Your task to perform on an android device: turn off priority inbox in the gmail app Image 0: 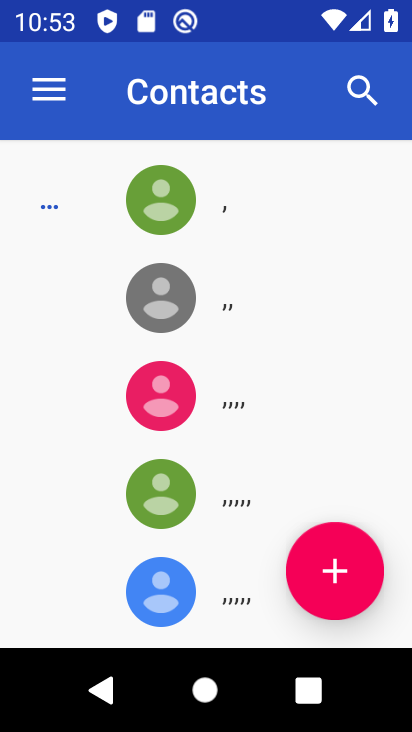
Step 0: press home button
Your task to perform on an android device: turn off priority inbox in the gmail app Image 1: 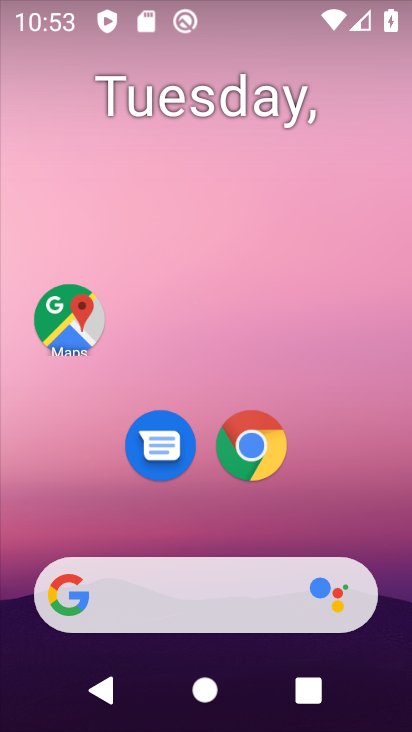
Step 1: drag from (373, 491) to (367, 228)
Your task to perform on an android device: turn off priority inbox in the gmail app Image 2: 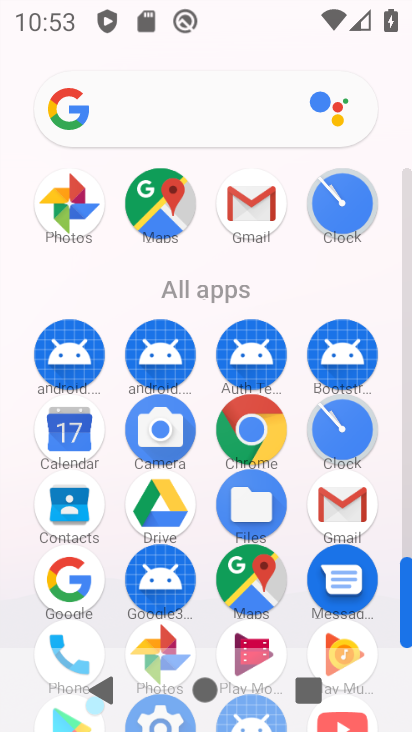
Step 2: click (343, 519)
Your task to perform on an android device: turn off priority inbox in the gmail app Image 3: 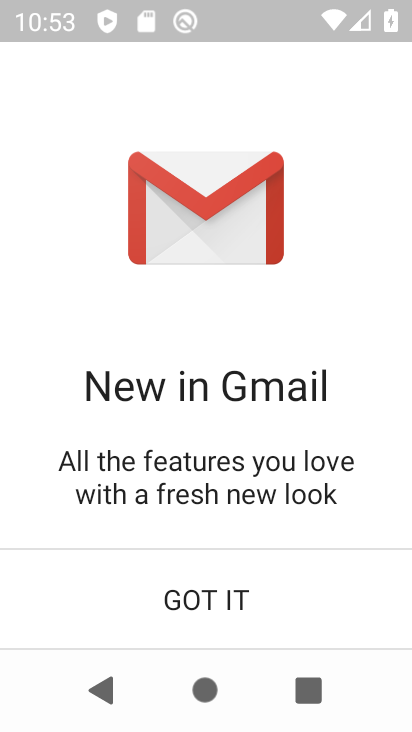
Step 3: click (232, 611)
Your task to perform on an android device: turn off priority inbox in the gmail app Image 4: 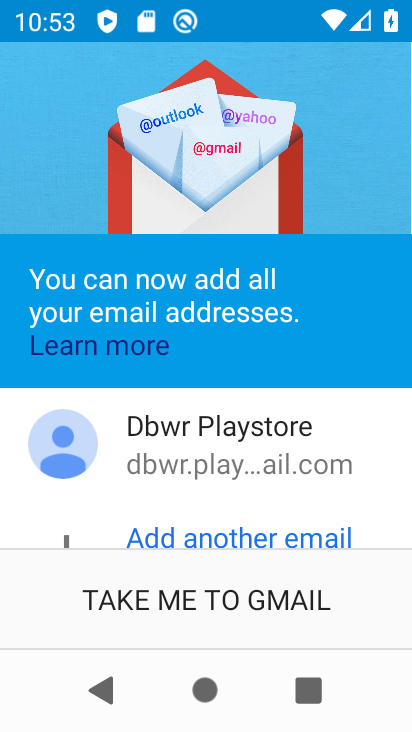
Step 4: click (232, 611)
Your task to perform on an android device: turn off priority inbox in the gmail app Image 5: 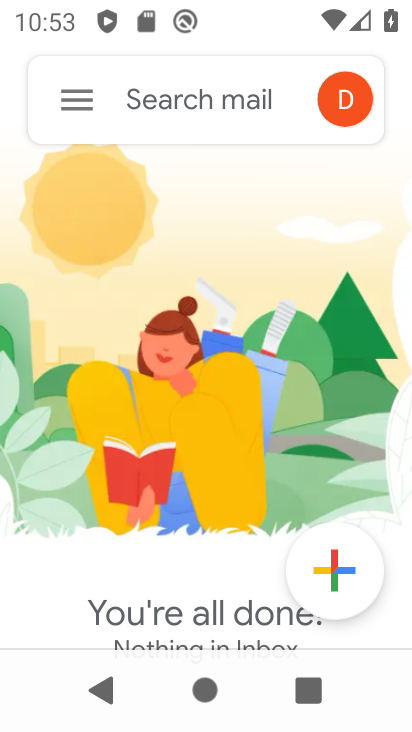
Step 5: click (80, 107)
Your task to perform on an android device: turn off priority inbox in the gmail app Image 6: 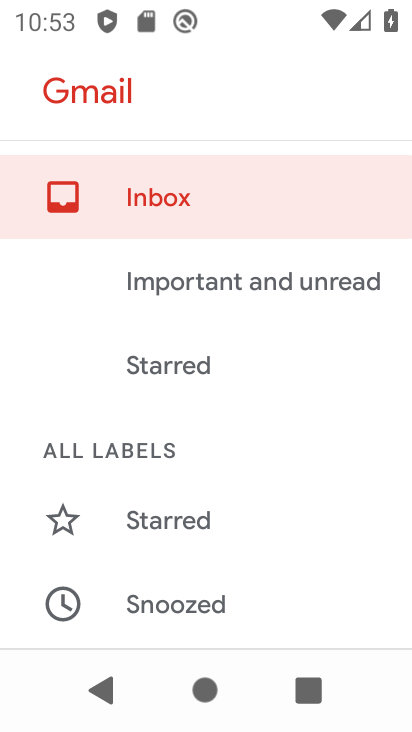
Step 6: drag from (288, 512) to (306, 363)
Your task to perform on an android device: turn off priority inbox in the gmail app Image 7: 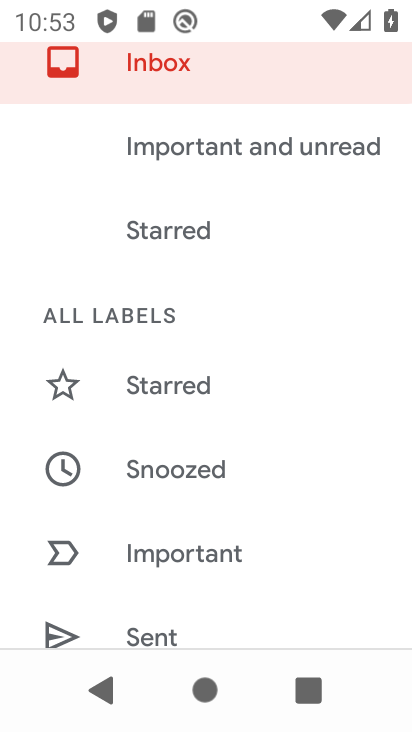
Step 7: drag from (306, 495) to (324, 331)
Your task to perform on an android device: turn off priority inbox in the gmail app Image 8: 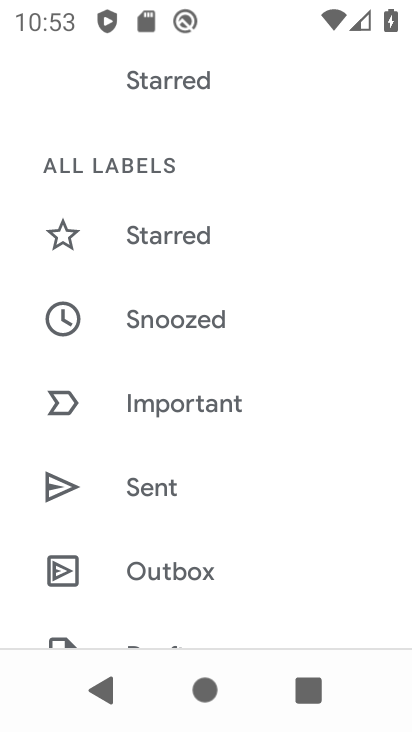
Step 8: drag from (306, 556) to (324, 385)
Your task to perform on an android device: turn off priority inbox in the gmail app Image 9: 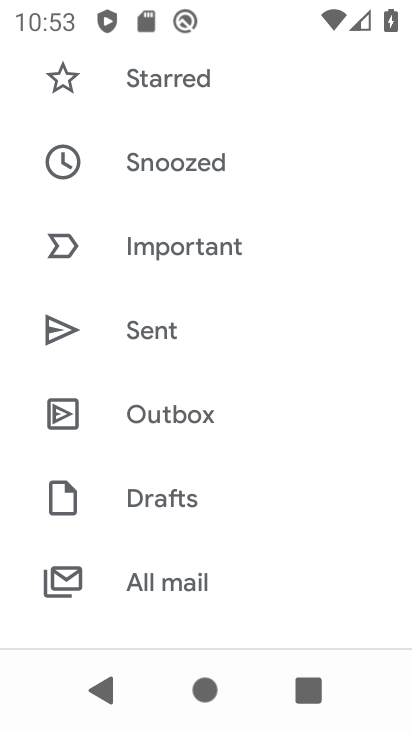
Step 9: drag from (311, 582) to (308, 430)
Your task to perform on an android device: turn off priority inbox in the gmail app Image 10: 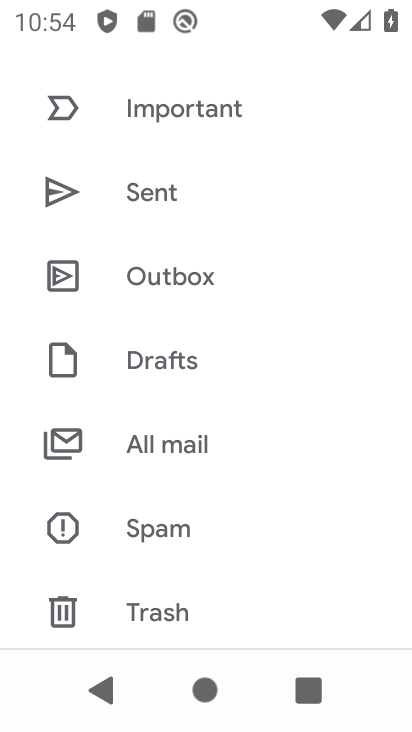
Step 10: drag from (292, 584) to (289, 450)
Your task to perform on an android device: turn off priority inbox in the gmail app Image 11: 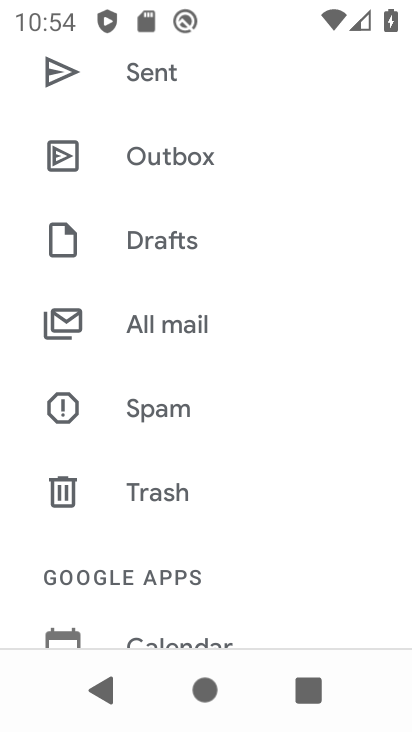
Step 11: drag from (271, 565) to (265, 401)
Your task to perform on an android device: turn off priority inbox in the gmail app Image 12: 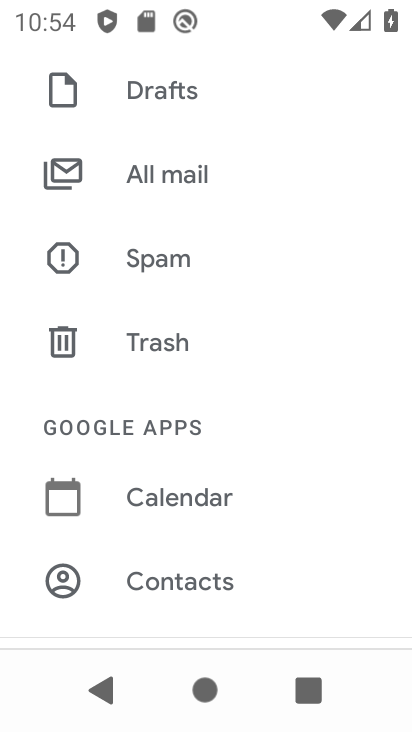
Step 12: drag from (275, 576) to (288, 431)
Your task to perform on an android device: turn off priority inbox in the gmail app Image 13: 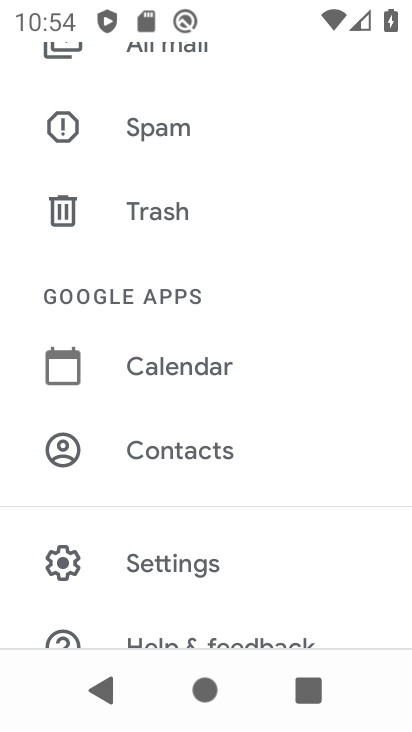
Step 13: drag from (285, 602) to (288, 433)
Your task to perform on an android device: turn off priority inbox in the gmail app Image 14: 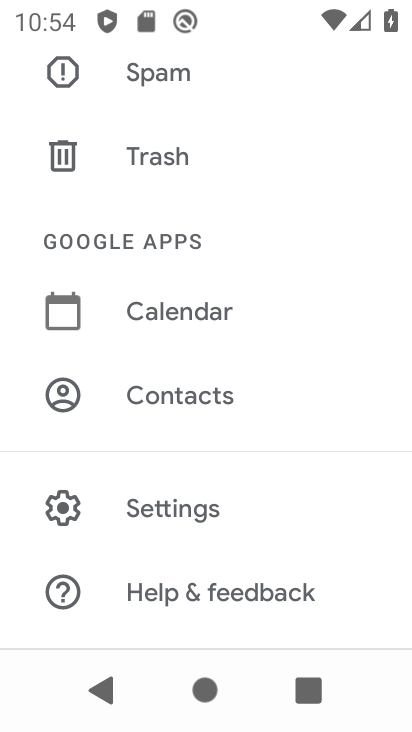
Step 14: click (211, 523)
Your task to perform on an android device: turn off priority inbox in the gmail app Image 15: 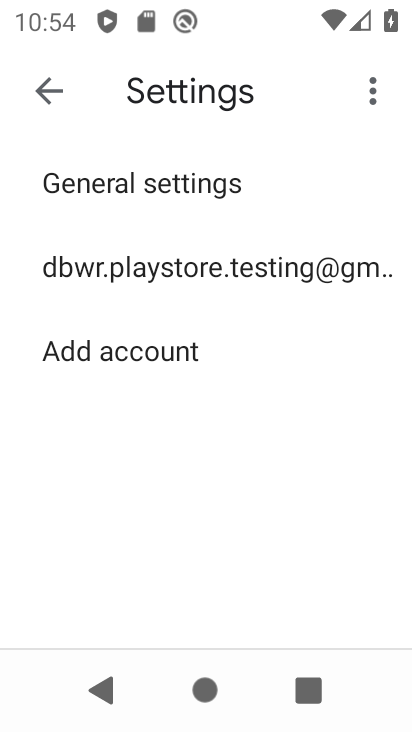
Step 15: click (217, 276)
Your task to perform on an android device: turn off priority inbox in the gmail app Image 16: 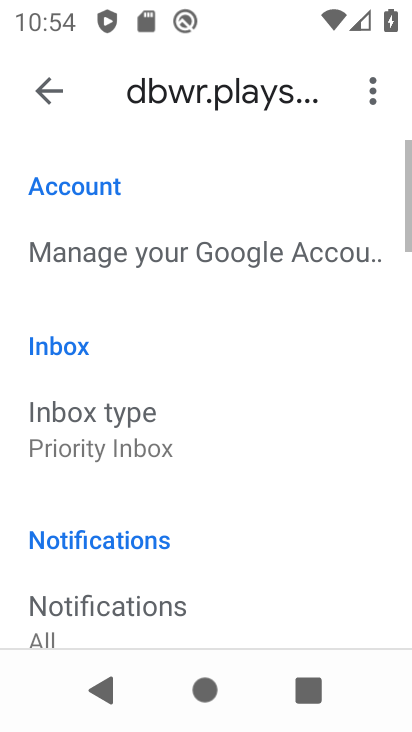
Step 16: drag from (267, 519) to (289, 399)
Your task to perform on an android device: turn off priority inbox in the gmail app Image 17: 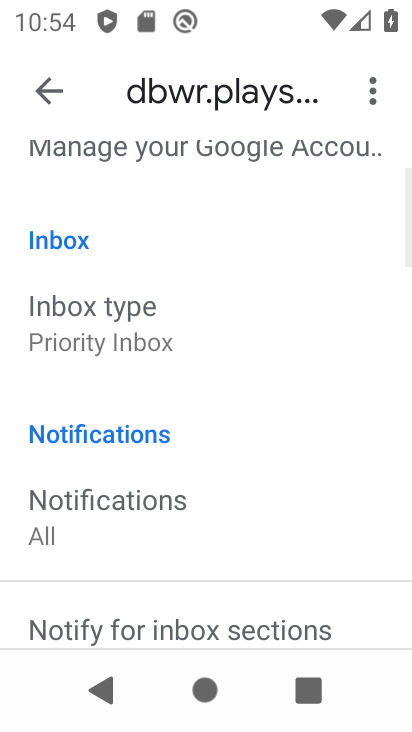
Step 17: drag from (259, 568) to (284, 409)
Your task to perform on an android device: turn off priority inbox in the gmail app Image 18: 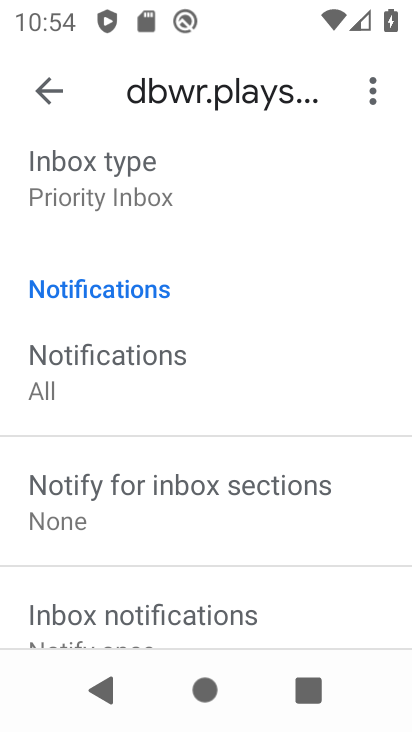
Step 18: drag from (292, 570) to (296, 430)
Your task to perform on an android device: turn off priority inbox in the gmail app Image 19: 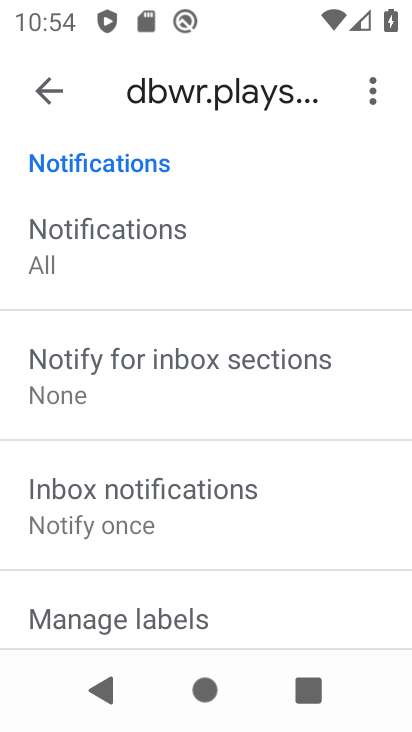
Step 19: drag from (310, 571) to (317, 466)
Your task to perform on an android device: turn off priority inbox in the gmail app Image 20: 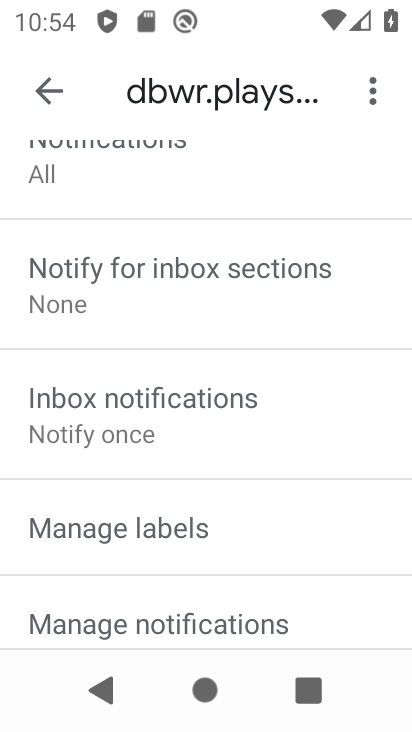
Step 20: drag from (310, 578) to (300, 385)
Your task to perform on an android device: turn off priority inbox in the gmail app Image 21: 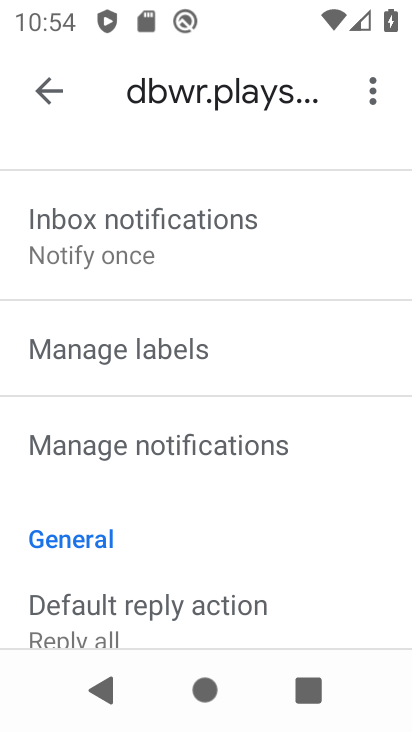
Step 21: drag from (304, 547) to (326, 377)
Your task to perform on an android device: turn off priority inbox in the gmail app Image 22: 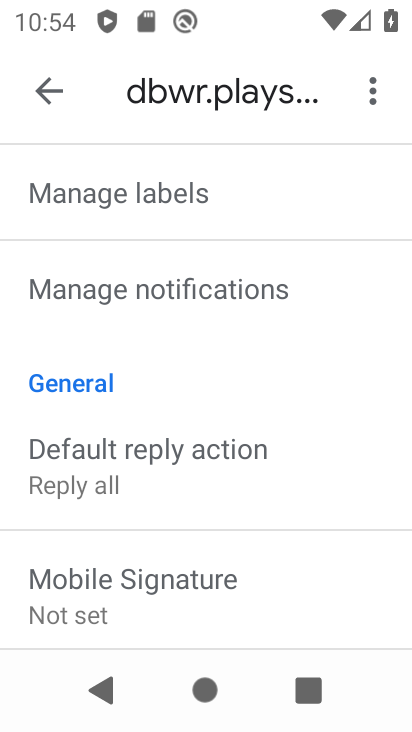
Step 22: drag from (325, 235) to (289, 450)
Your task to perform on an android device: turn off priority inbox in the gmail app Image 23: 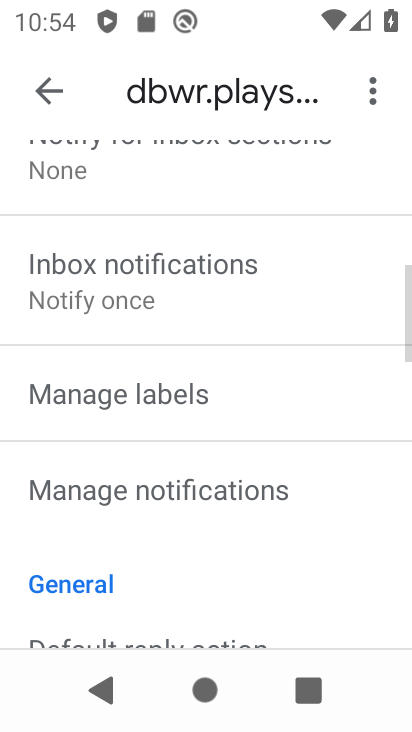
Step 23: drag from (316, 239) to (287, 475)
Your task to perform on an android device: turn off priority inbox in the gmail app Image 24: 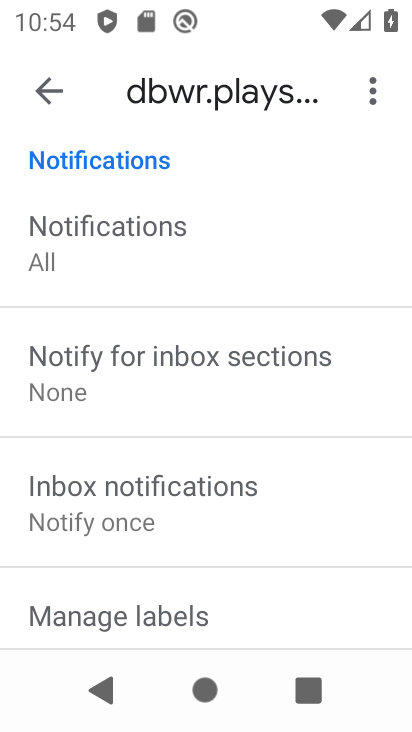
Step 24: drag from (271, 209) to (247, 414)
Your task to perform on an android device: turn off priority inbox in the gmail app Image 25: 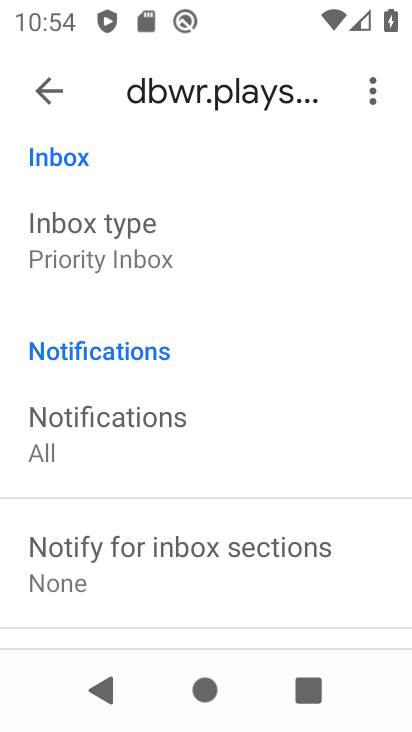
Step 25: click (140, 259)
Your task to perform on an android device: turn off priority inbox in the gmail app Image 26: 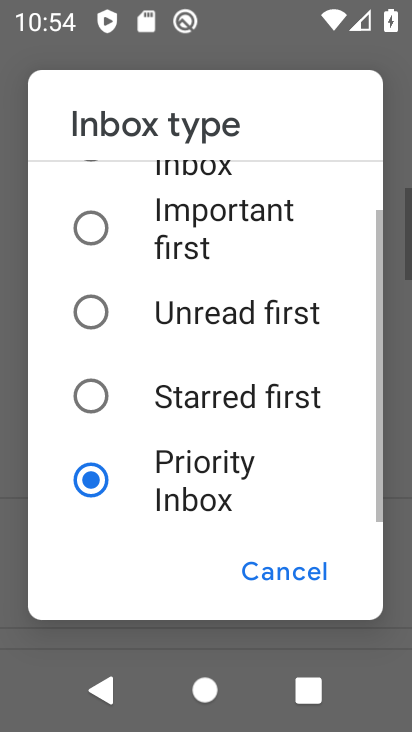
Step 26: click (210, 317)
Your task to perform on an android device: turn off priority inbox in the gmail app Image 27: 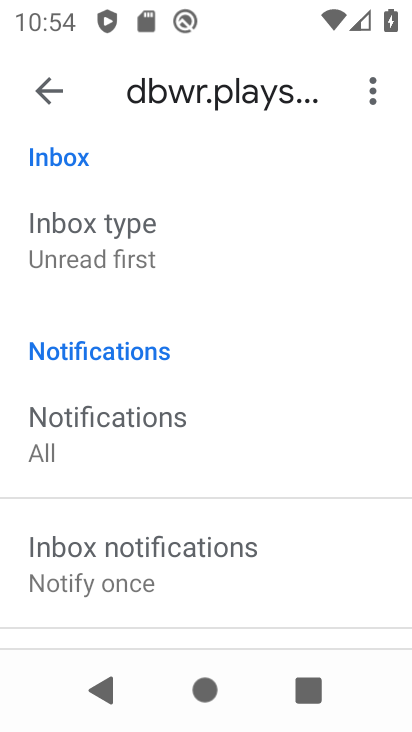
Step 27: task complete